Your task to perform on an android device: turn off notifications in google photos Image 0: 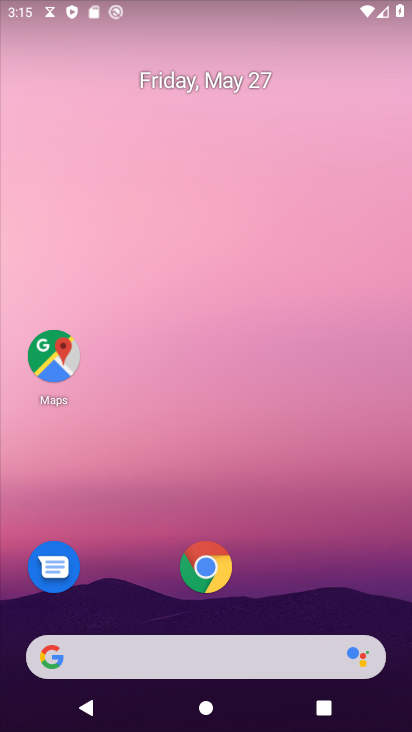
Step 0: drag from (147, 580) to (206, 132)
Your task to perform on an android device: turn off notifications in google photos Image 1: 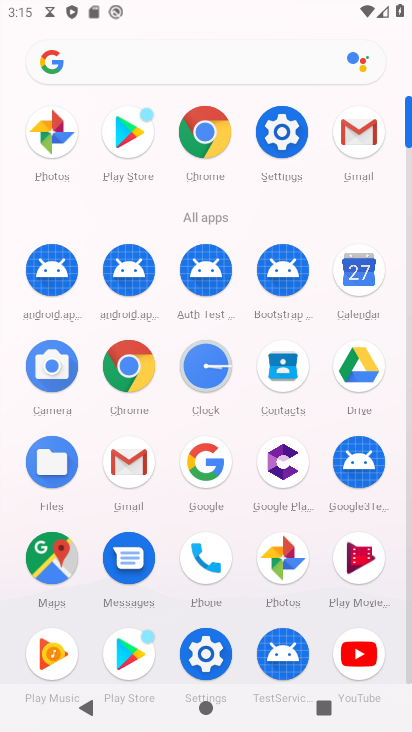
Step 1: click (288, 566)
Your task to perform on an android device: turn off notifications in google photos Image 2: 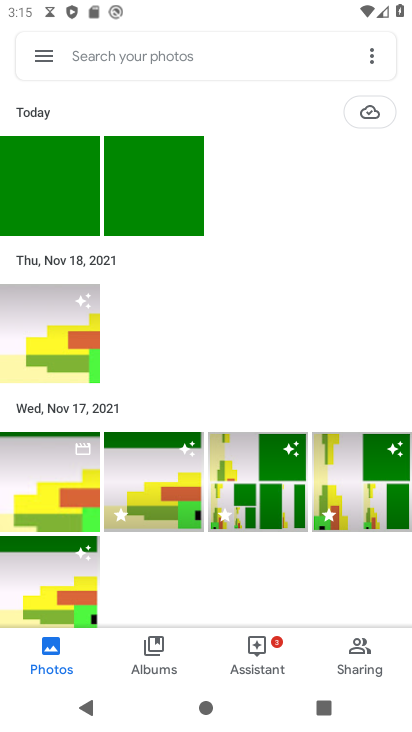
Step 2: click (55, 648)
Your task to perform on an android device: turn off notifications in google photos Image 3: 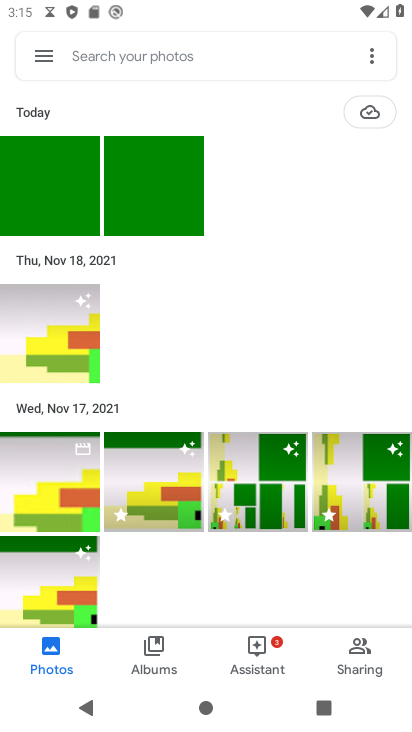
Step 3: task complete